Your task to perform on an android device: Go to display settings Image 0: 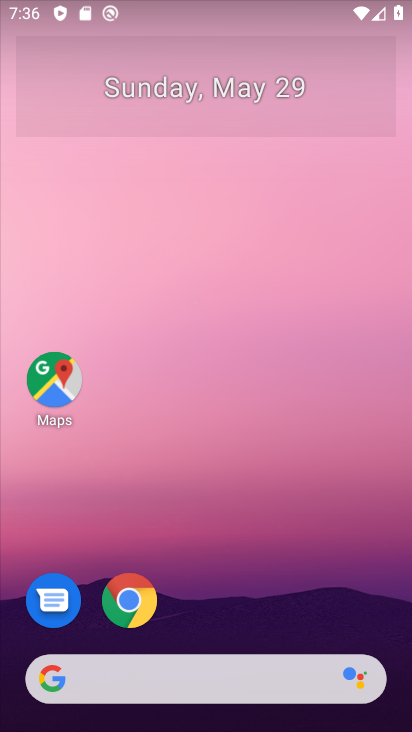
Step 0: drag from (238, 600) to (305, 268)
Your task to perform on an android device: Go to display settings Image 1: 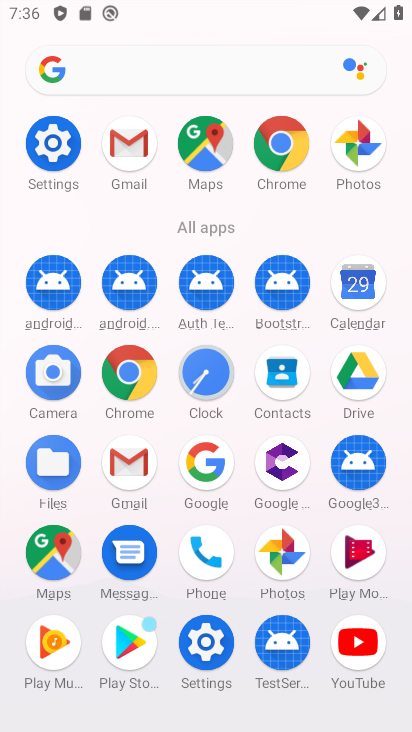
Step 1: click (213, 648)
Your task to perform on an android device: Go to display settings Image 2: 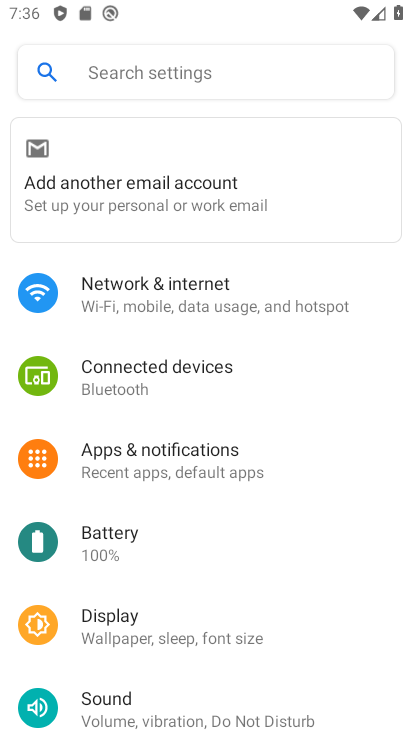
Step 2: click (127, 637)
Your task to perform on an android device: Go to display settings Image 3: 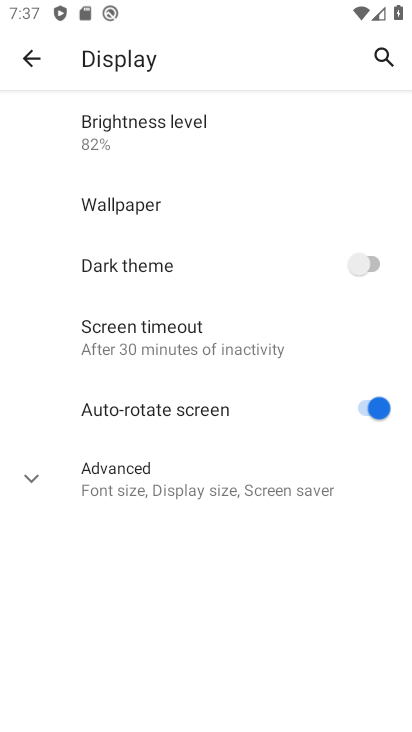
Step 3: task complete